Your task to perform on an android device: Open eBay Image 0: 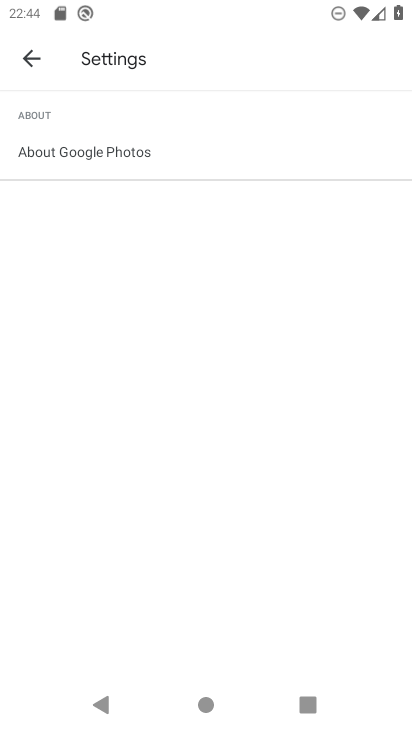
Step 0: press home button
Your task to perform on an android device: Open eBay Image 1: 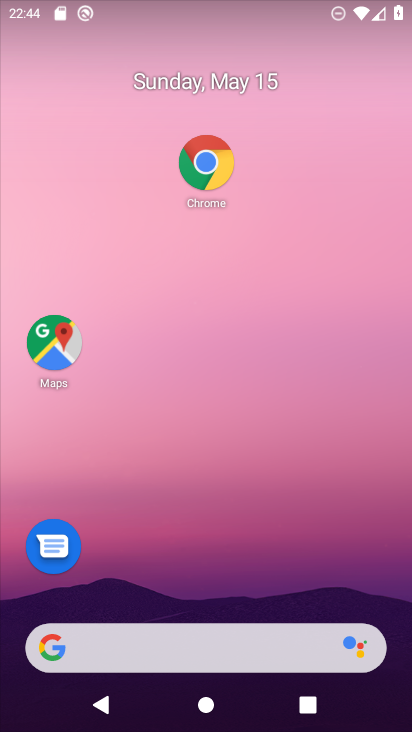
Step 1: drag from (213, 607) to (257, 251)
Your task to perform on an android device: Open eBay Image 2: 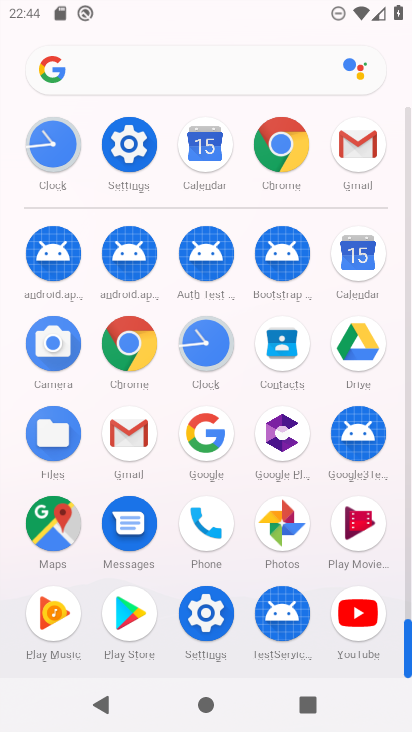
Step 2: click (275, 129)
Your task to perform on an android device: Open eBay Image 3: 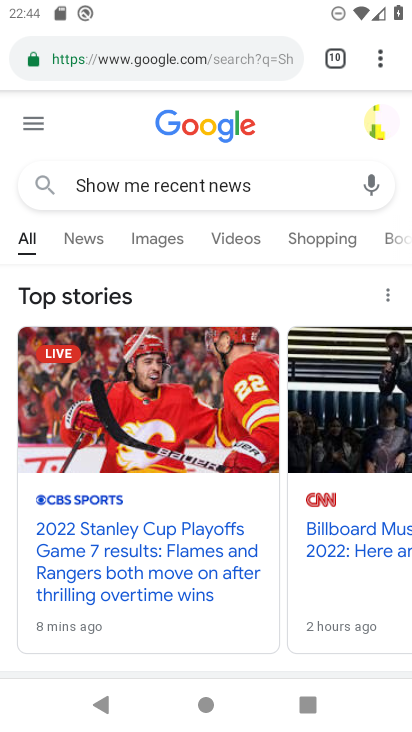
Step 3: click (369, 48)
Your task to perform on an android device: Open eBay Image 4: 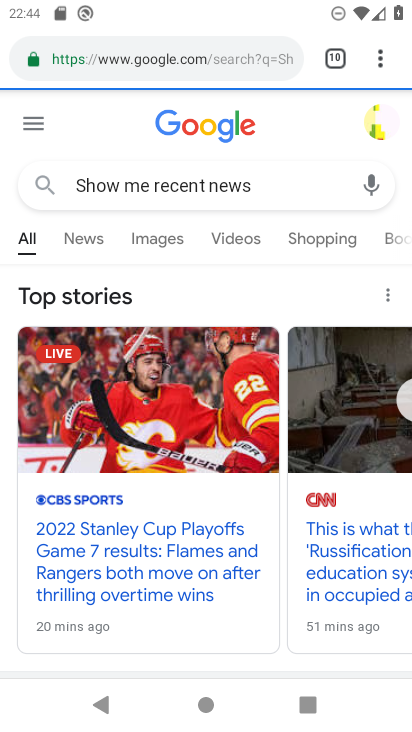
Step 4: click (359, 47)
Your task to perform on an android device: Open eBay Image 5: 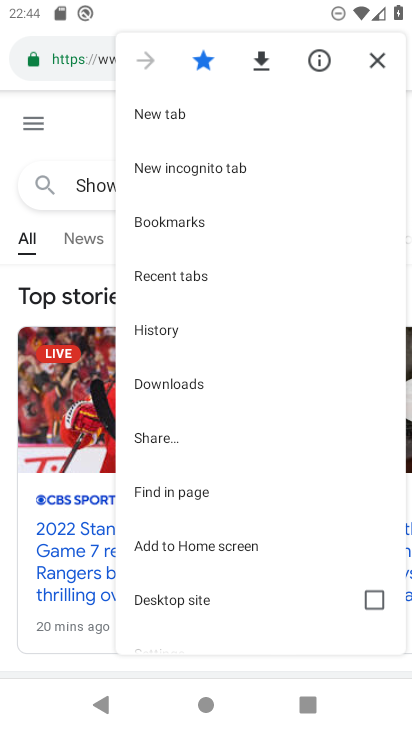
Step 5: click (190, 115)
Your task to perform on an android device: Open eBay Image 6: 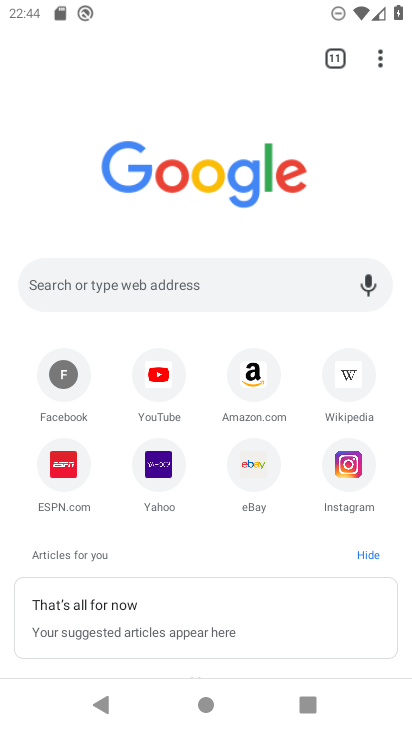
Step 6: click (270, 455)
Your task to perform on an android device: Open eBay Image 7: 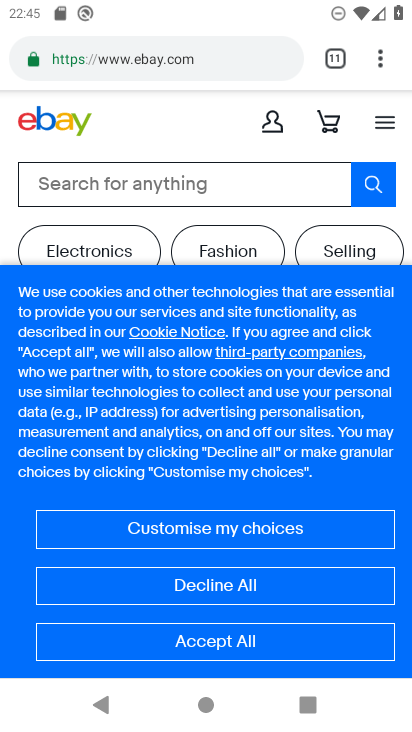
Step 7: task complete